Your task to perform on an android device: turn on notifications settings in the gmail app Image 0: 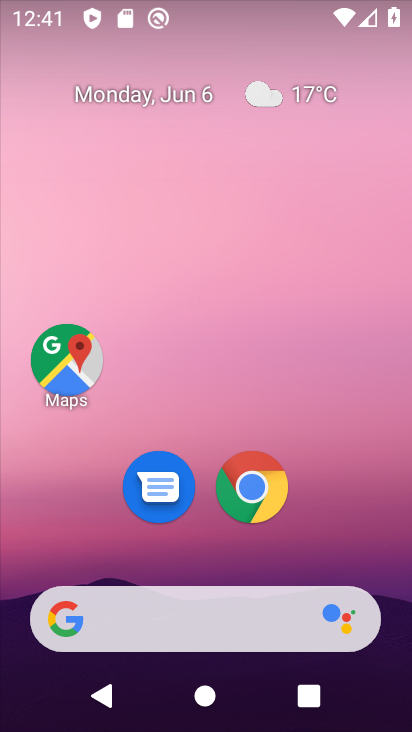
Step 0: drag from (223, 213) to (230, 73)
Your task to perform on an android device: turn on notifications settings in the gmail app Image 1: 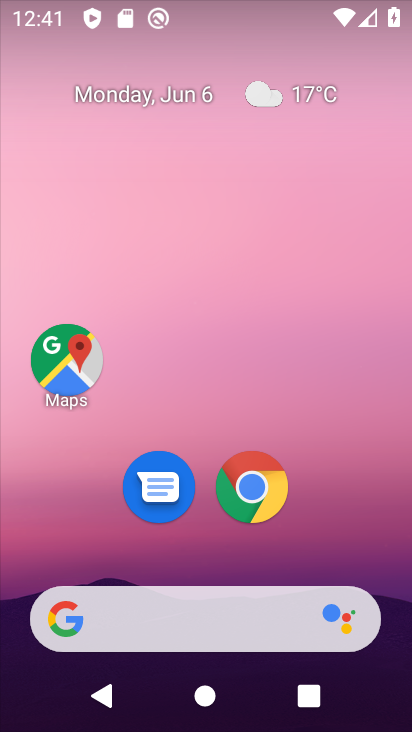
Step 1: drag from (194, 533) to (246, 76)
Your task to perform on an android device: turn on notifications settings in the gmail app Image 2: 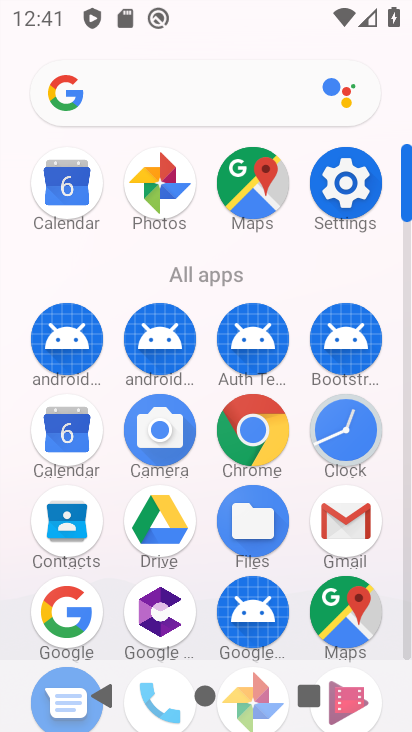
Step 2: click (341, 513)
Your task to perform on an android device: turn on notifications settings in the gmail app Image 3: 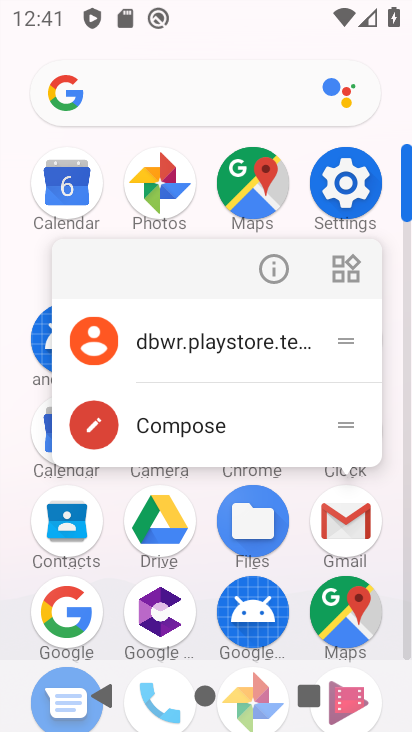
Step 3: click (268, 268)
Your task to perform on an android device: turn on notifications settings in the gmail app Image 4: 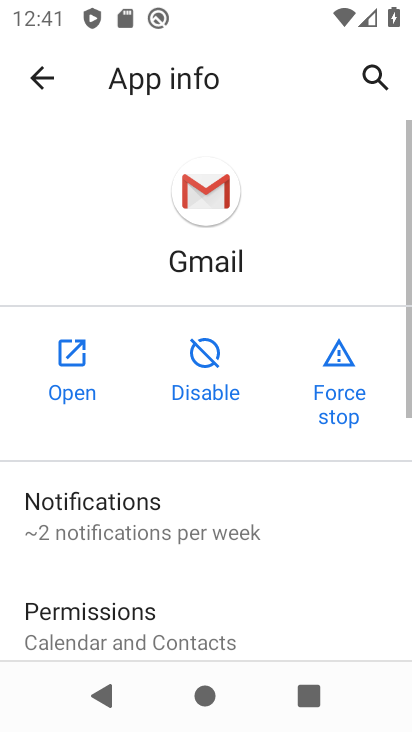
Step 4: click (128, 495)
Your task to perform on an android device: turn on notifications settings in the gmail app Image 5: 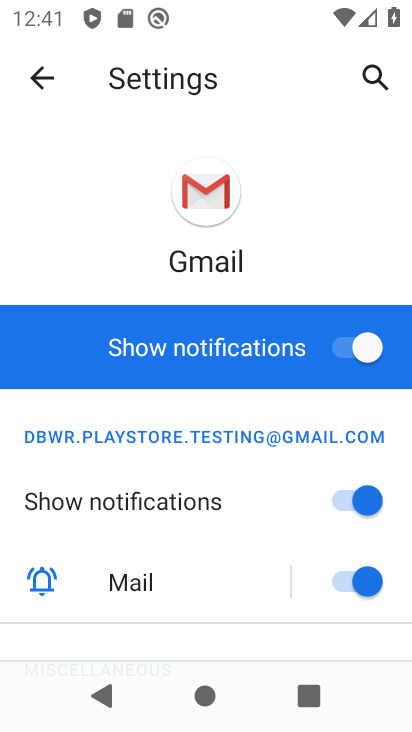
Step 5: task complete